Your task to perform on an android device: Search for vegetarian restaurants on Maps Image 0: 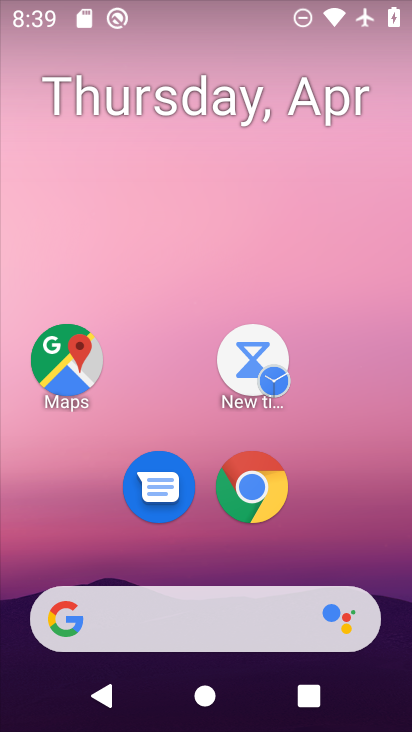
Step 0: drag from (347, 516) to (227, 97)
Your task to perform on an android device: Search for vegetarian restaurants on Maps Image 1: 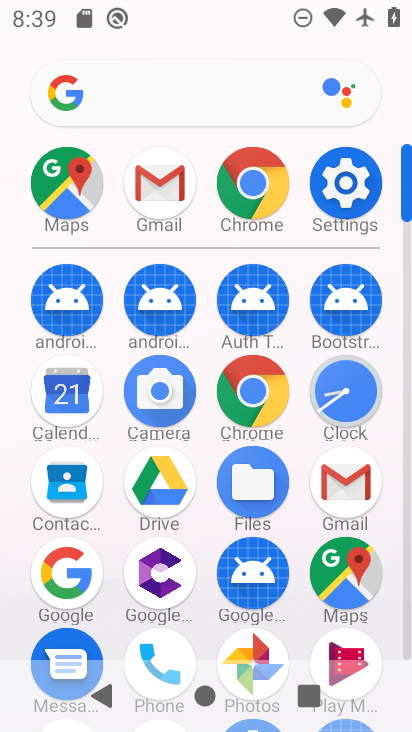
Step 1: click (70, 185)
Your task to perform on an android device: Search for vegetarian restaurants on Maps Image 2: 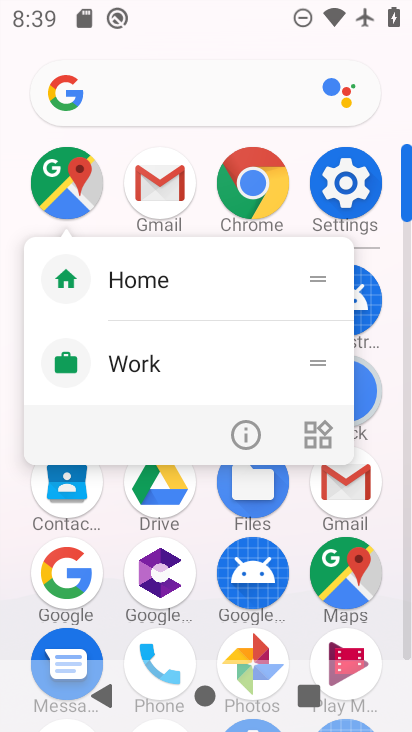
Step 2: click (70, 185)
Your task to perform on an android device: Search for vegetarian restaurants on Maps Image 3: 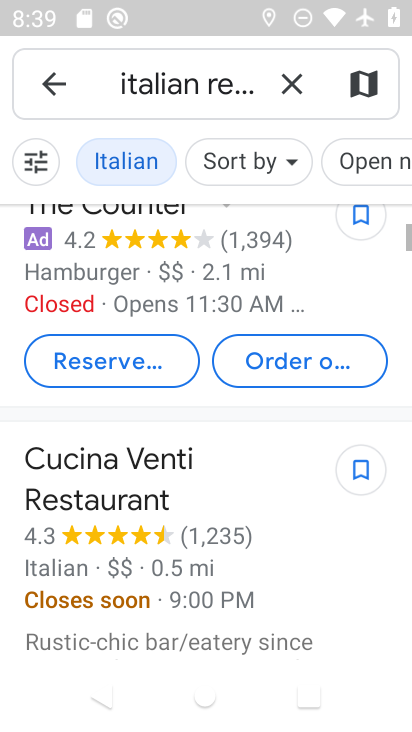
Step 3: click (289, 81)
Your task to perform on an android device: Search for vegetarian restaurants on Maps Image 4: 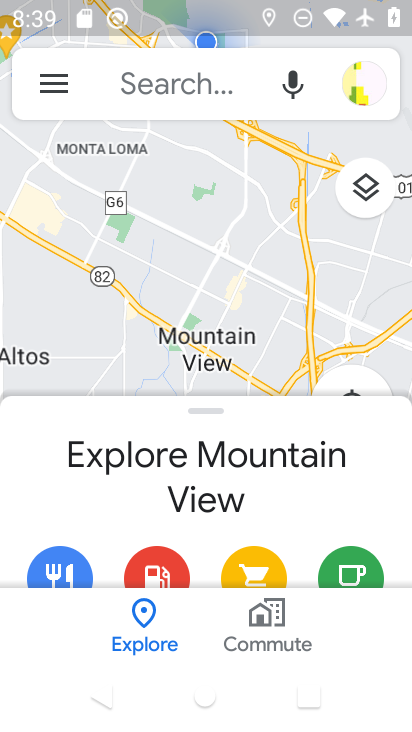
Step 4: click (174, 92)
Your task to perform on an android device: Search for vegetarian restaurants on Maps Image 5: 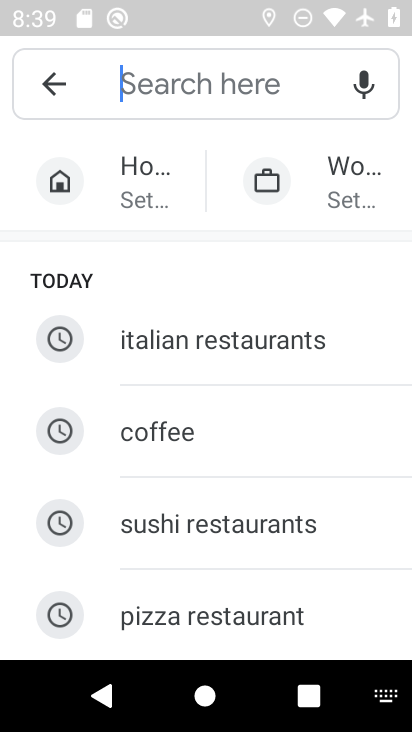
Step 5: drag from (340, 611) to (322, 263)
Your task to perform on an android device: Search for vegetarian restaurants on Maps Image 6: 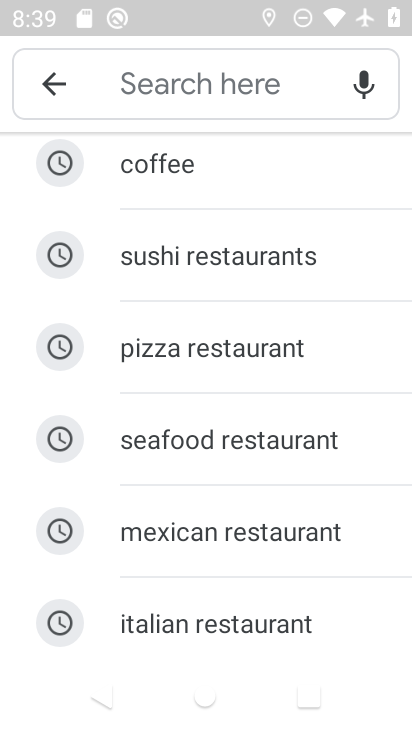
Step 6: drag from (331, 593) to (338, 259)
Your task to perform on an android device: Search for vegetarian restaurants on Maps Image 7: 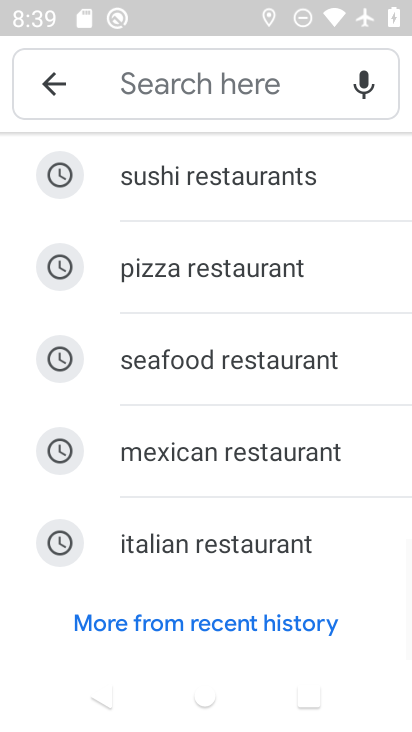
Step 7: click (204, 88)
Your task to perform on an android device: Search for vegetarian restaurants on Maps Image 8: 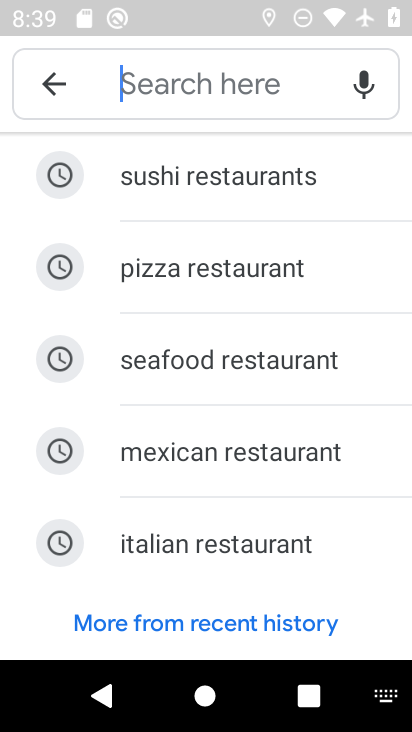
Step 8: type "vegetarian restaurants"
Your task to perform on an android device: Search for vegetarian restaurants on Maps Image 9: 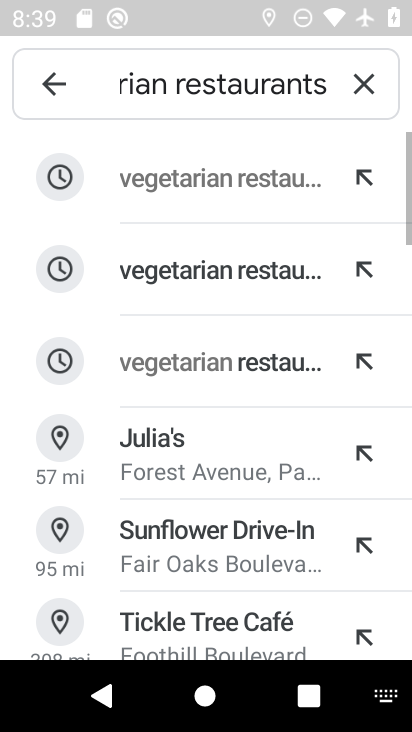
Step 9: click (205, 183)
Your task to perform on an android device: Search for vegetarian restaurants on Maps Image 10: 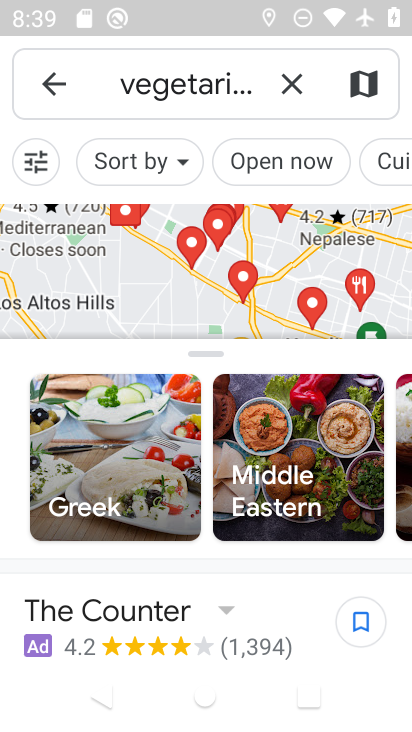
Step 10: task complete